Your task to perform on an android device: Go to Android settings Image 0: 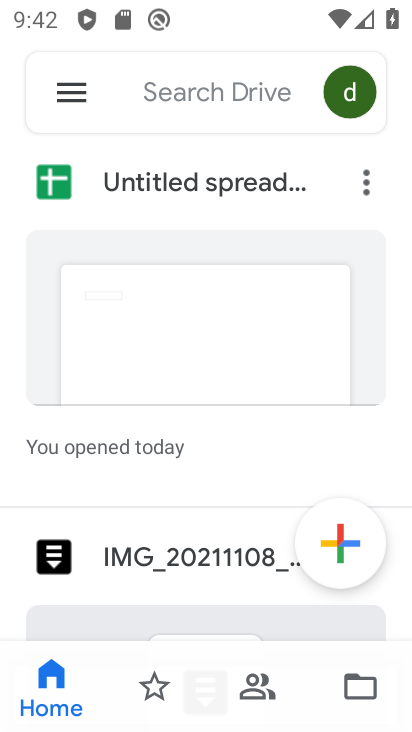
Step 0: press home button
Your task to perform on an android device: Go to Android settings Image 1: 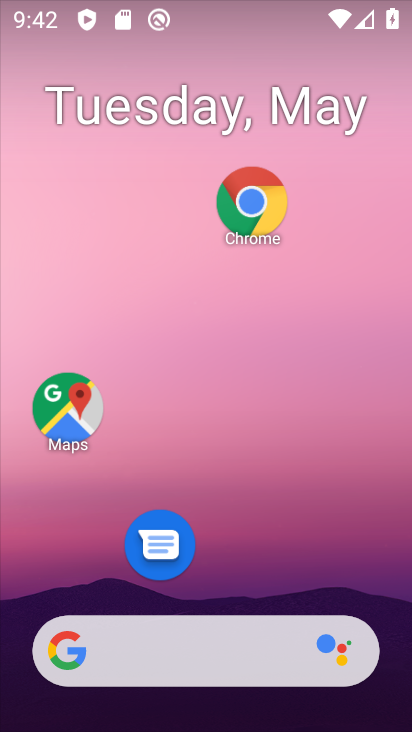
Step 1: drag from (392, 617) to (325, 84)
Your task to perform on an android device: Go to Android settings Image 2: 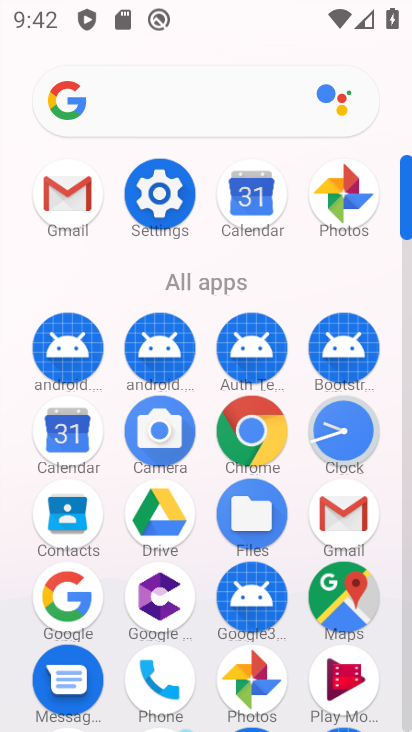
Step 2: click (153, 194)
Your task to perform on an android device: Go to Android settings Image 3: 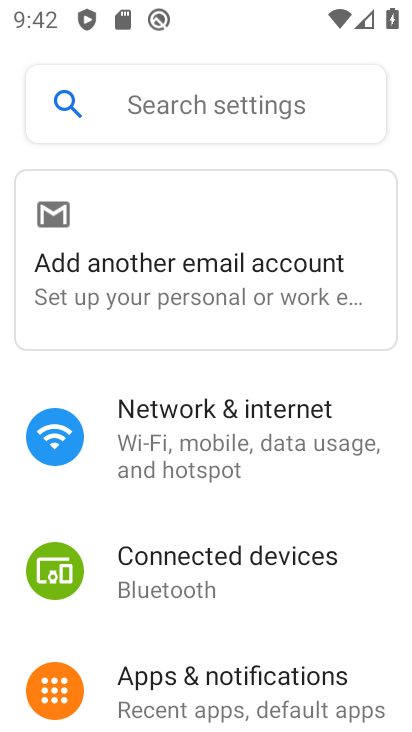
Step 3: task complete